Your task to perform on an android device: toggle sleep mode Image 0: 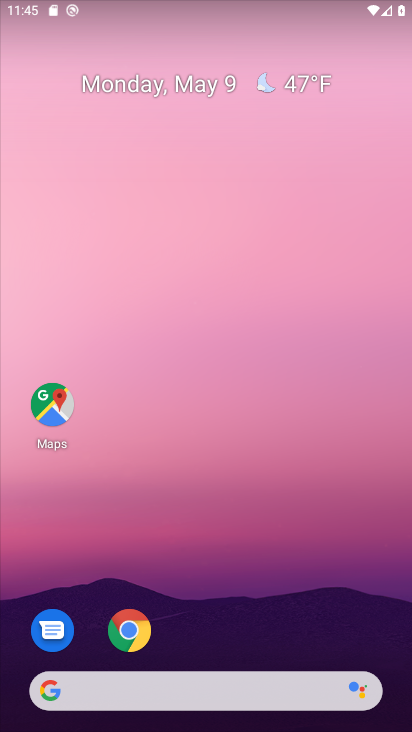
Step 0: drag from (229, 575) to (154, 275)
Your task to perform on an android device: toggle sleep mode Image 1: 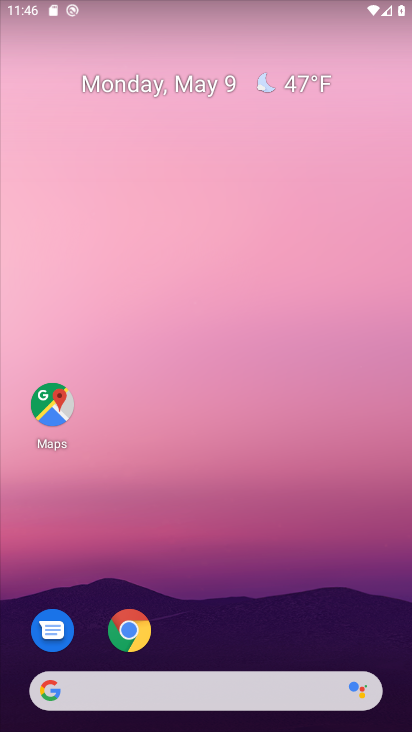
Step 1: drag from (214, 623) to (181, 191)
Your task to perform on an android device: toggle sleep mode Image 2: 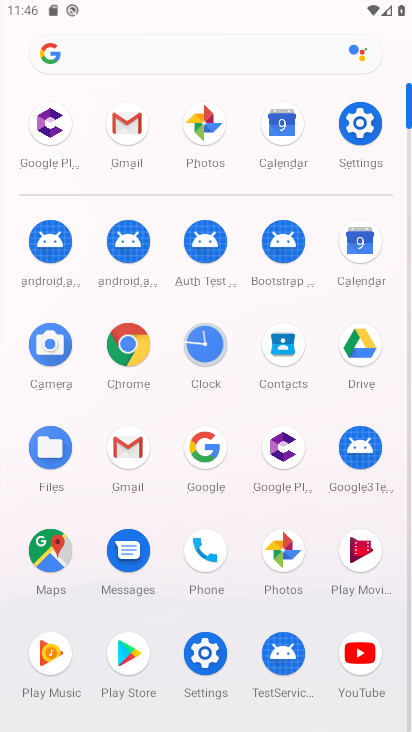
Step 2: click (212, 661)
Your task to perform on an android device: toggle sleep mode Image 3: 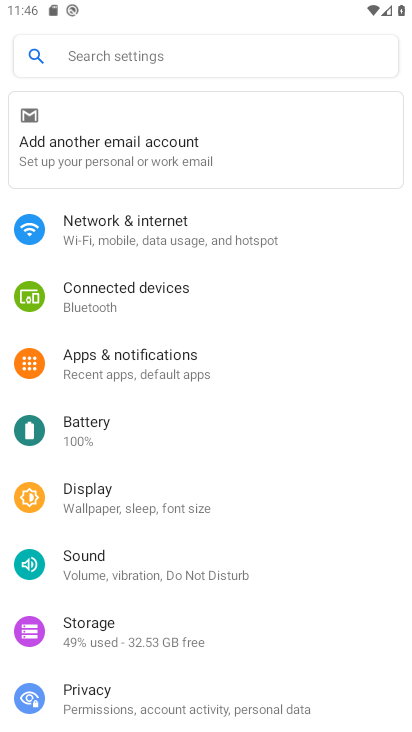
Step 3: click (197, 505)
Your task to perform on an android device: toggle sleep mode Image 4: 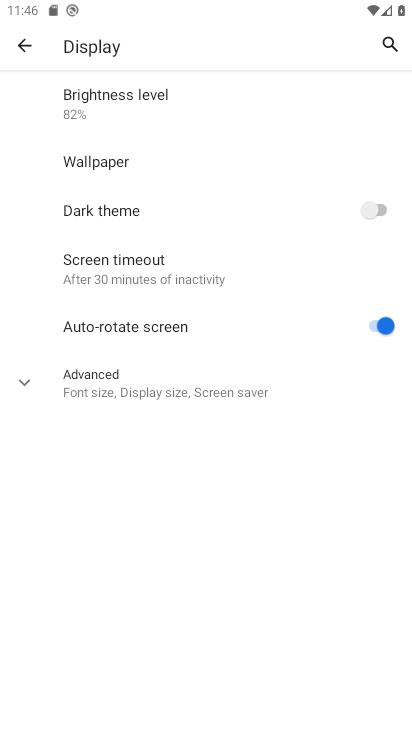
Step 4: click (163, 399)
Your task to perform on an android device: toggle sleep mode Image 5: 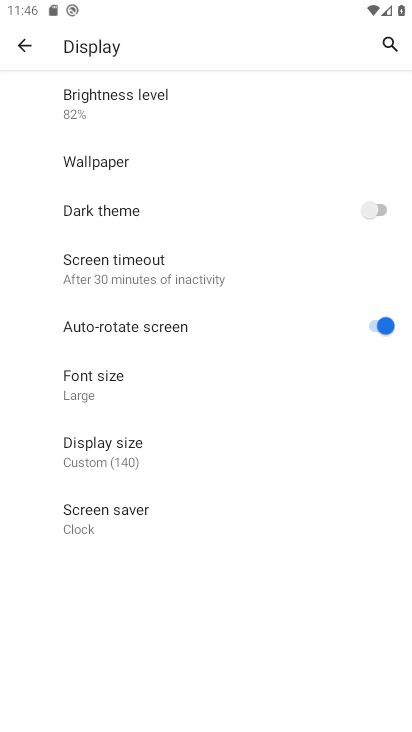
Step 5: task complete